Your task to perform on an android device: Open network settings Image 0: 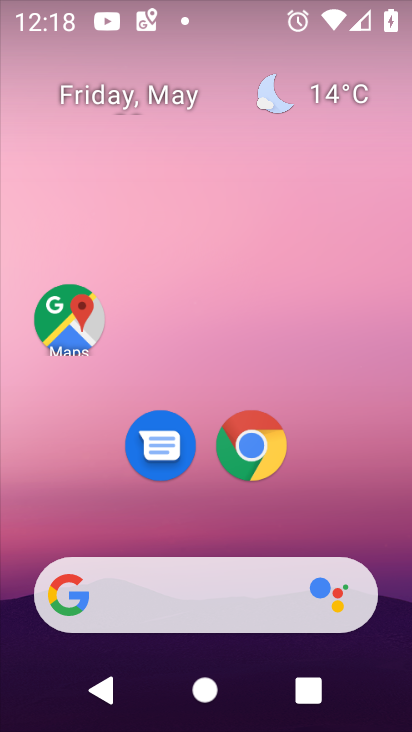
Step 0: drag from (262, 520) to (297, 146)
Your task to perform on an android device: Open network settings Image 1: 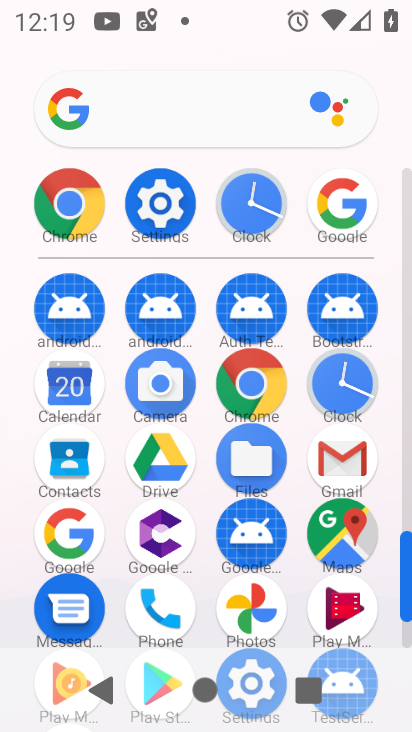
Step 1: click (160, 216)
Your task to perform on an android device: Open network settings Image 2: 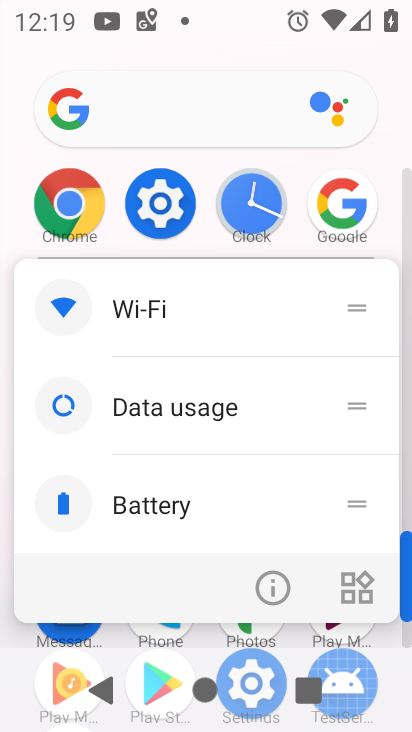
Step 2: click (181, 210)
Your task to perform on an android device: Open network settings Image 3: 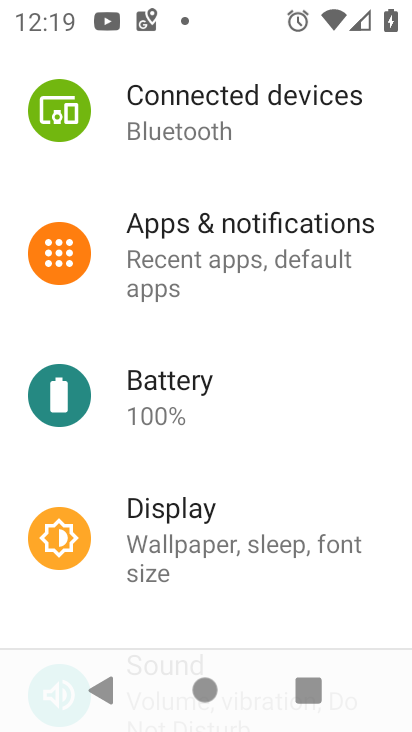
Step 3: drag from (262, 179) to (296, 654)
Your task to perform on an android device: Open network settings Image 4: 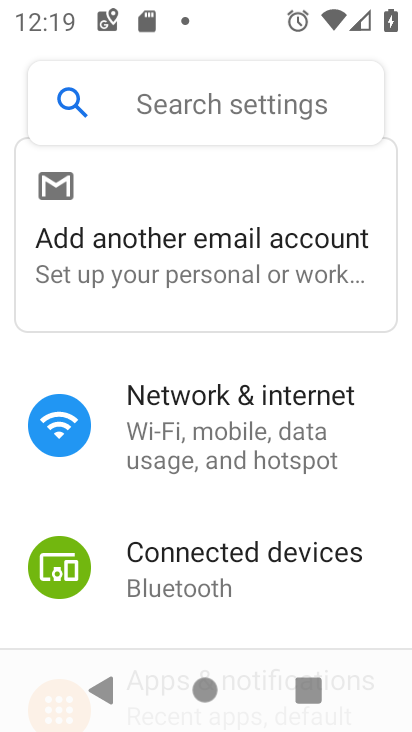
Step 4: click (269, 449)
Your task to perform on an android device: Open network settings Image 5: 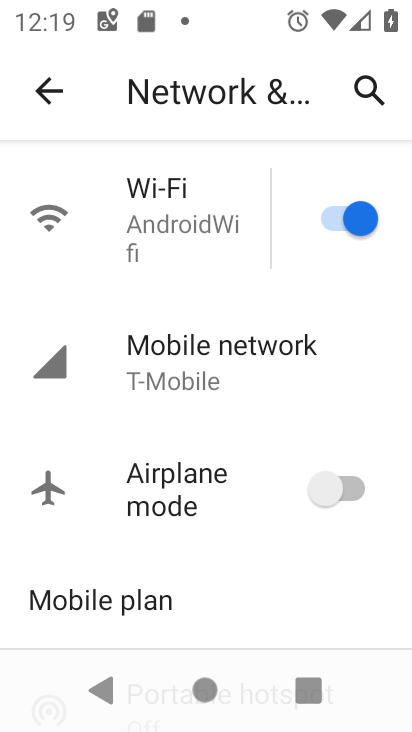
Step 5: click (228, 356)
Your task to perform on an android device: Open network settings Image 6: 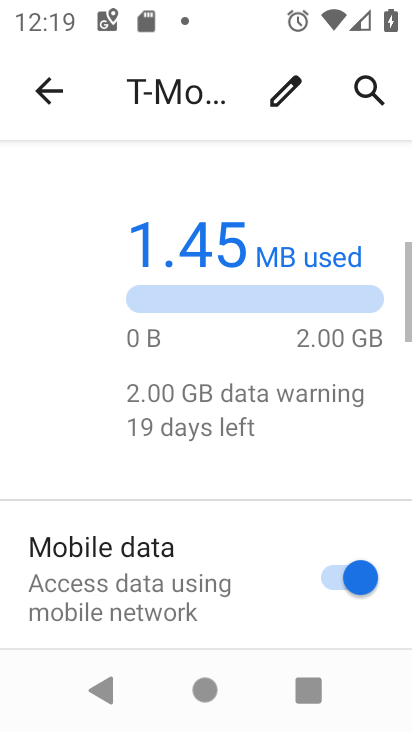
Step 6: task complete